Your task to perform on an android device: Go to sound settings Image 0: 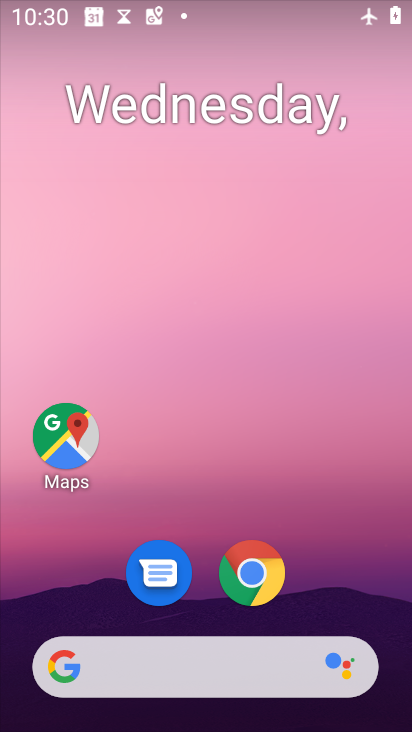
Step 0: drag from (307, 525) to (281, 186)
Your task to perform on an android device: Go to sound settings Image 1: 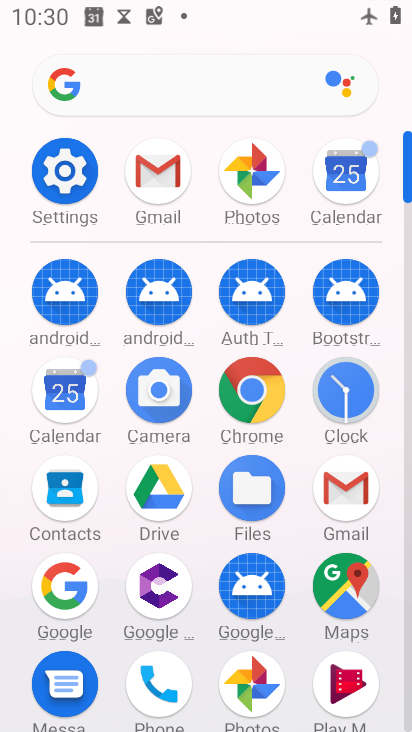
Step 1: click (64, 160)
Your task to perform on an android device: Go to sound settings Image 2: 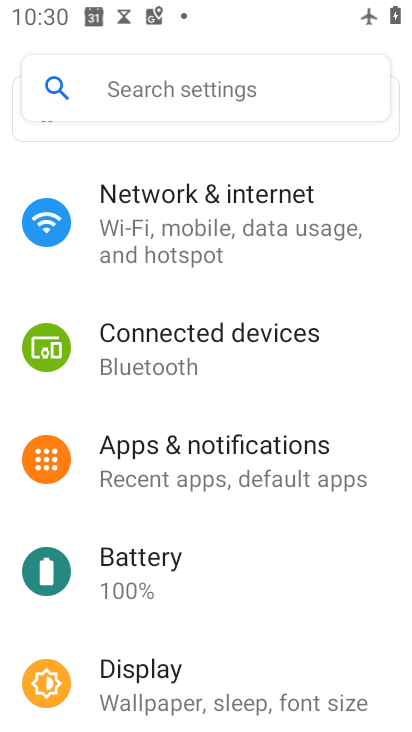
Step 2: drag from (228, 623) to (245, 293)
Your task to perform on an android device: Go to sound settings Image 3: 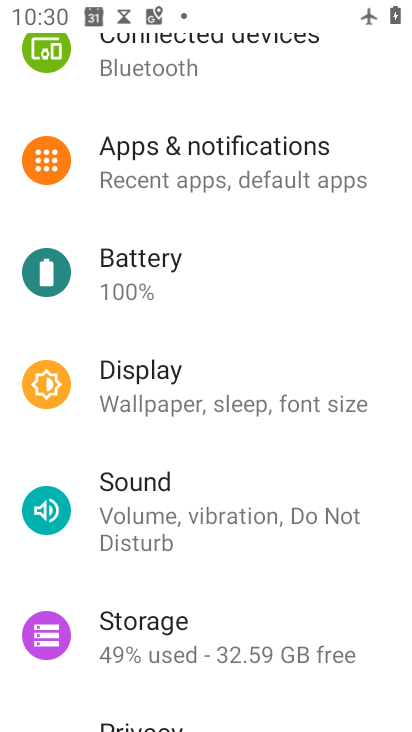
Step 3: click (196, 519)
Your task to perform on an android device: Go to sound settings Image 4: 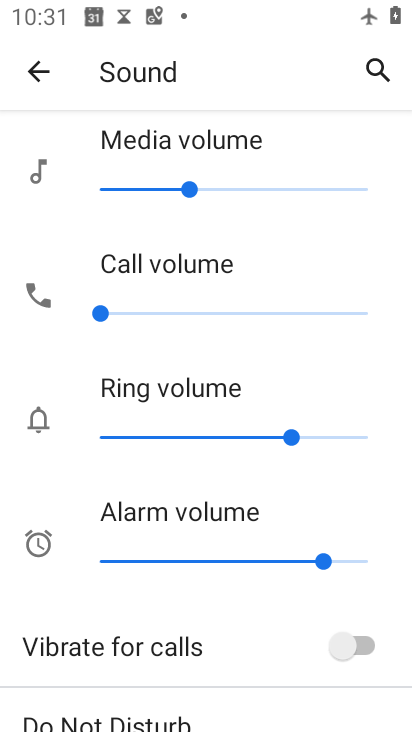
Step 4: task complete